Your task to perform on an android device: Open ESPN.com Image 0: 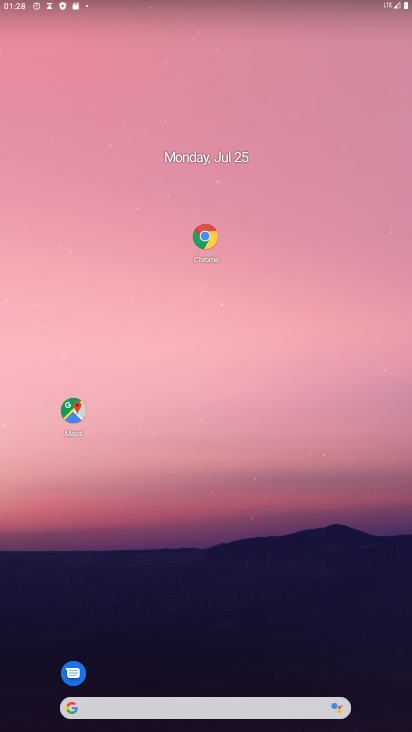
Step 0: drag from (245, 691) to (265, 3)
Your task to perform on an android device: Open ESPN.com Image 1: 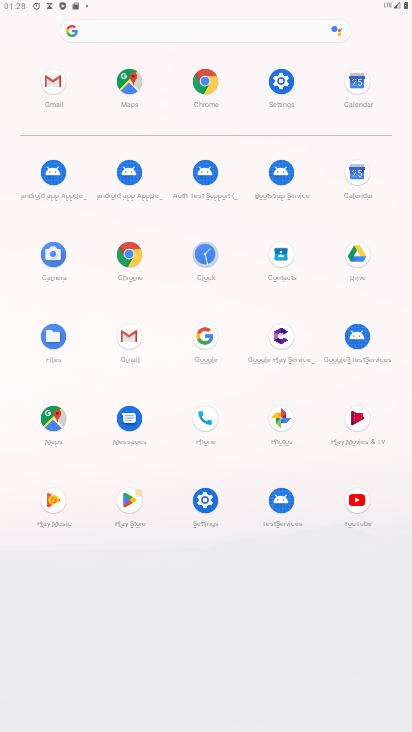
Step 1: click (134, 255)
Your task to perform on an android device: Open ESPN.com Image 2: 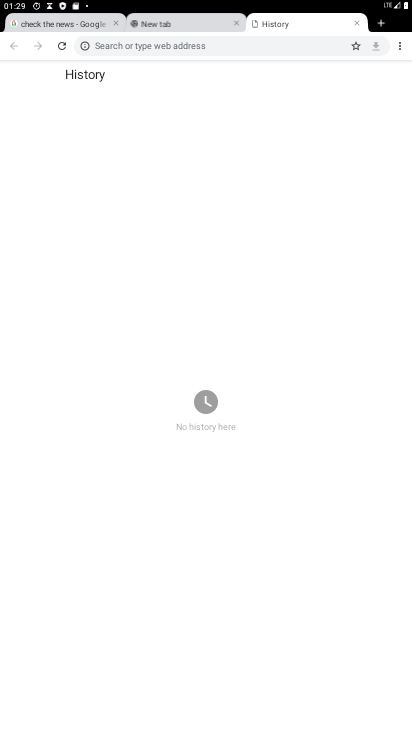
Step 2: click (190, 45)
Your task to perform on an android device: Open ESPN.com Image 3: 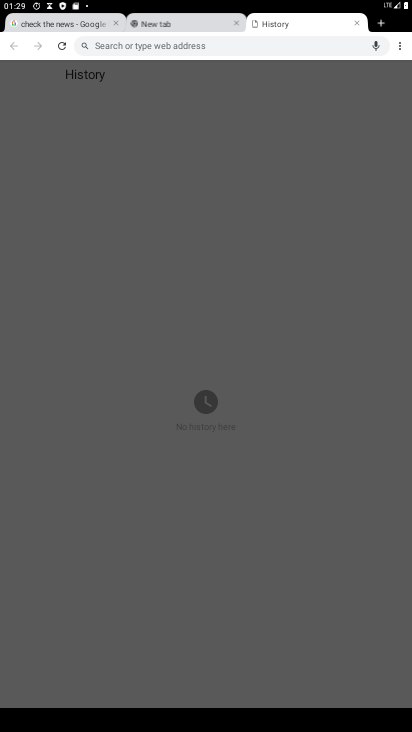
Step 3: type "espn.com"
Your task to perform on an android device: Open ESPN.com Image 4: 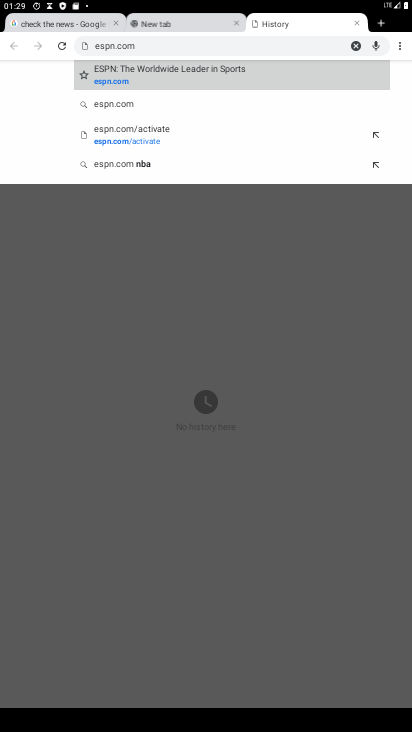
Step 4: click (254, 74)
Your task to perform on an android device: Open ESPN.com Image 5: 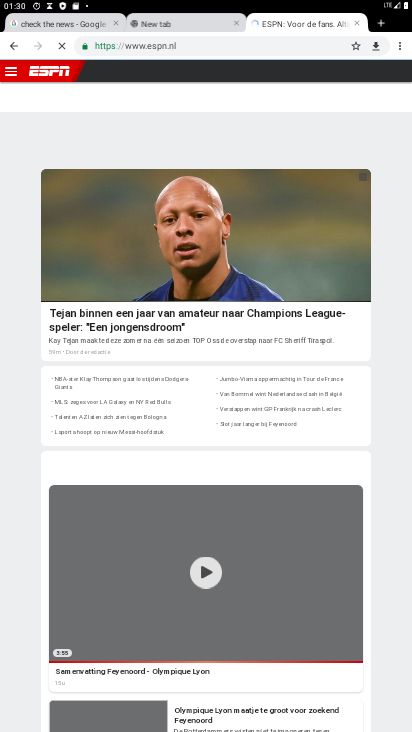
Step 5: task complete